Your task to perform on an android device: Open settings on Google Maps Image 0: 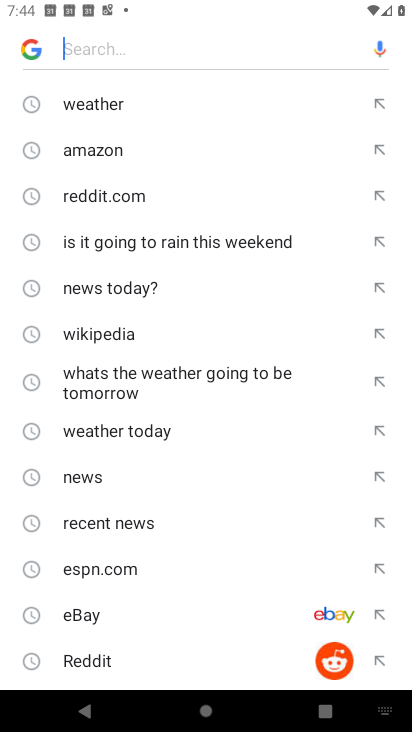
Step 0: press home button
Your task to perform on an android device: Open settings on Google Maps Image 1: 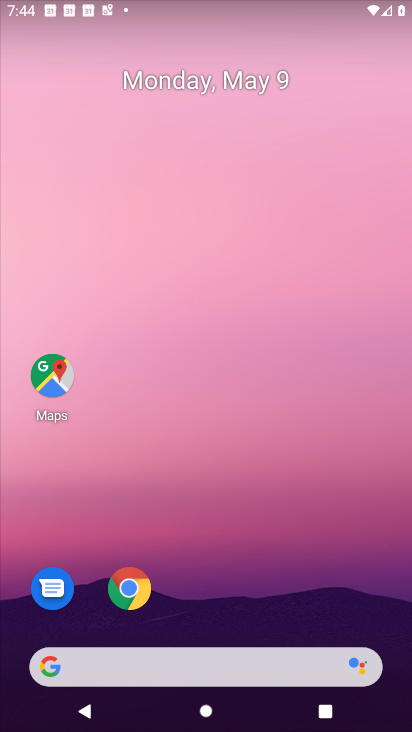
Step 1: click (48, 382)
Your task to perform on an android device: Open settings on Google Maps Image 2: 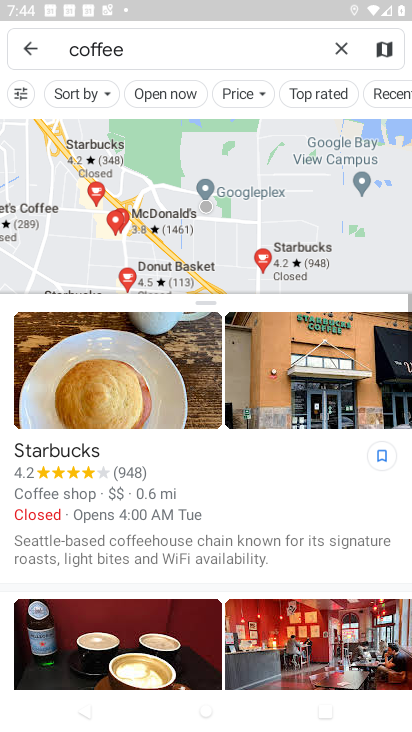
Step 2: click (26, 52)
Your task to perform on an android device: Open settings on Google Maps Image 3: 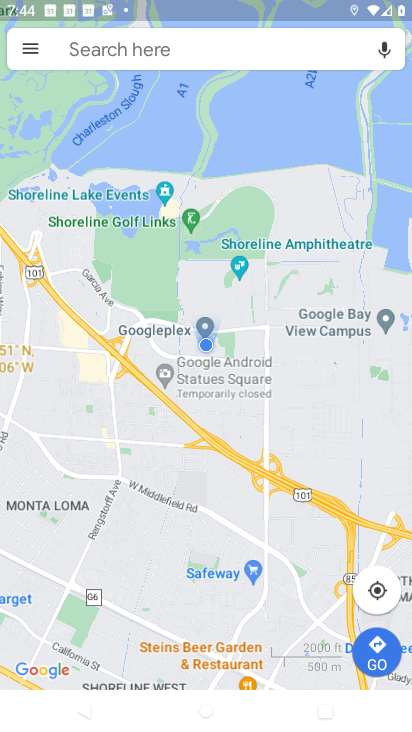
Step 3: click (32, 49)
Your task to perform on an android device: Open settings on Google Maps Image 4: 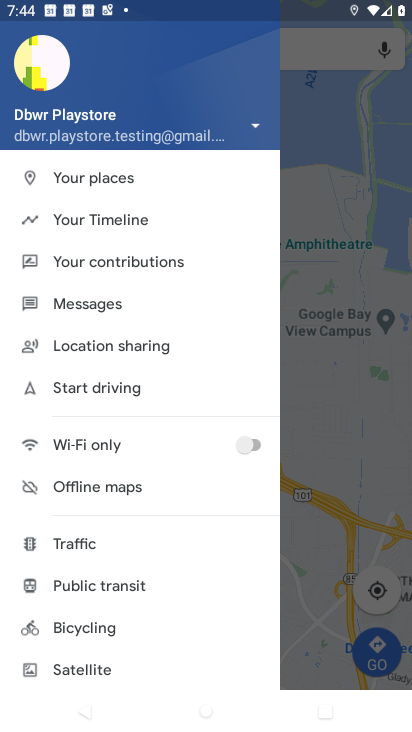
Step 4: drag from (147, 642) to (233, 269)
Your task to perform on an android device: Open settings on Google Maps Image 5: 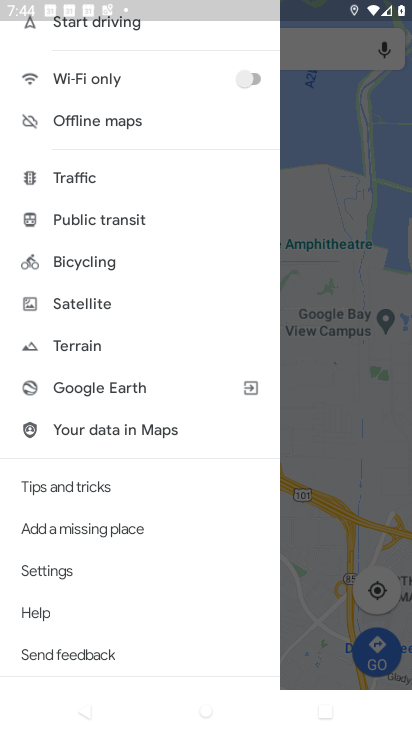
Step 5: click (66, 576)
Your task to perform on an android device: Open settings on Google Maps Image 6: 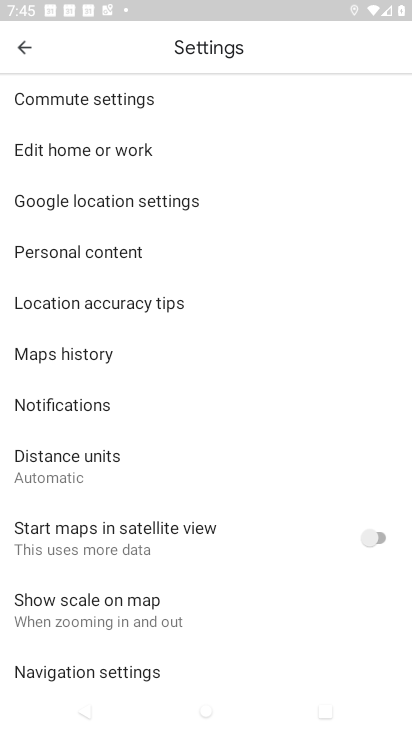
Step 6: task complete